Your task to perform on an android device: turn on sleep mode Image 0: 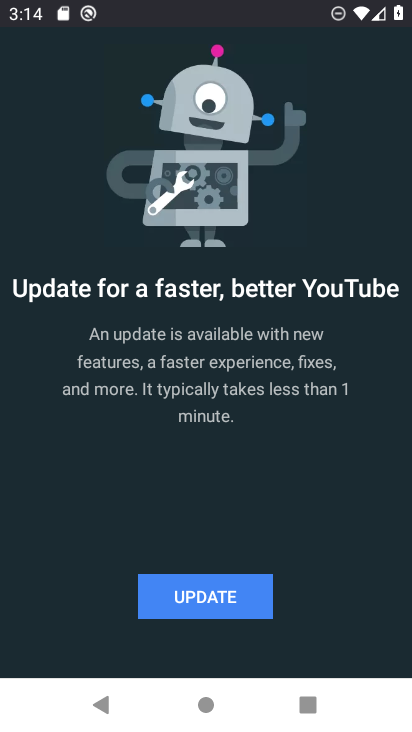
Step 0: press home button
Your task to perform on an android device: turn on sleep mode Image 1: 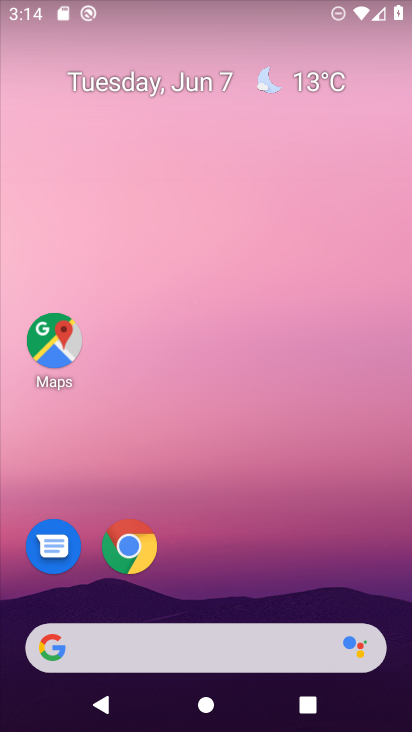
Step 1: drag from (56, 406) to (194, 161)
Your task to perform on an android device: turn on sleep mode Image 2: 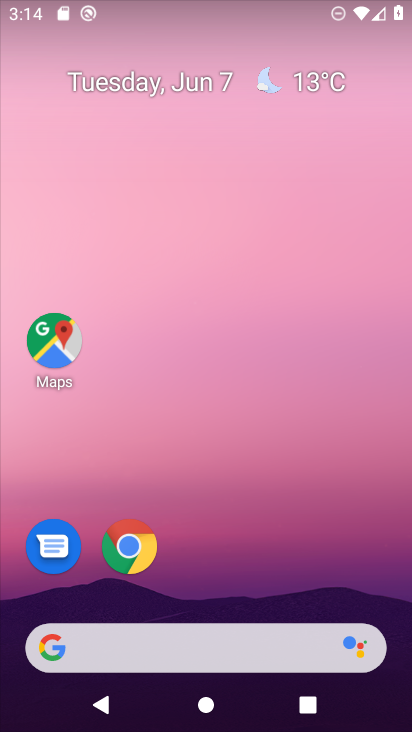
Step 2: drag from (127, 447) to (247, 198)
Your task to perform on an android device: turn on sleep mode Image 3: 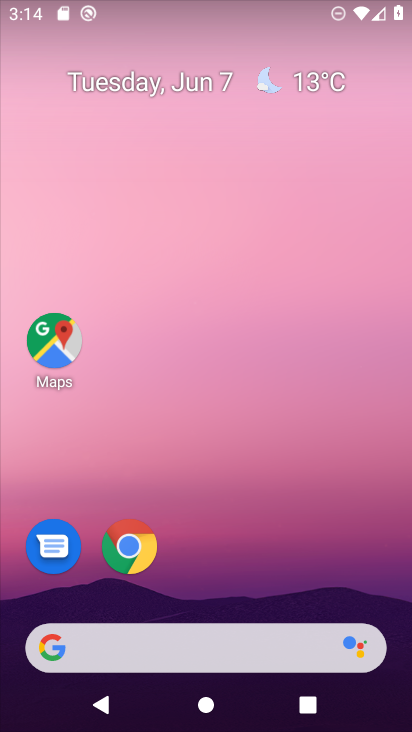
Step 3: drag from (15, 550) to (335, 82)
Your task to perform on an android device: turn on sleep mode Image 4: 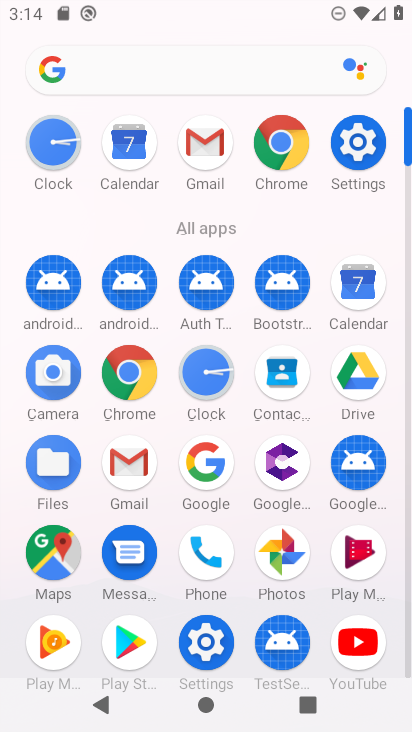
Step 4: click (345, 152)
Your task to perform on an android device: turn on sleep mode Image 5: 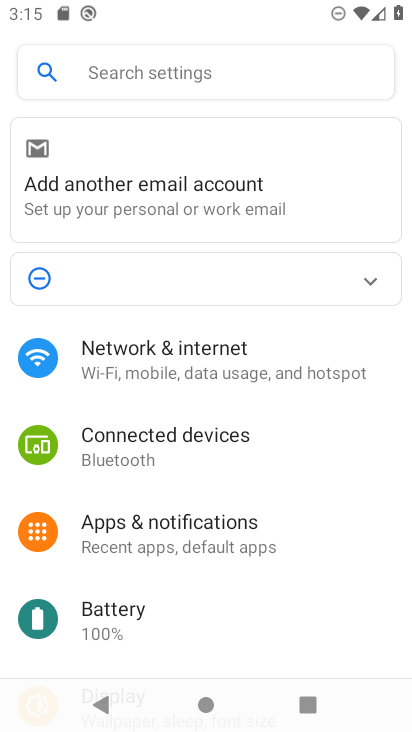
Step 5: click (130, 571)
Your task to perform on an android device: turn on sleep mode Image 6: 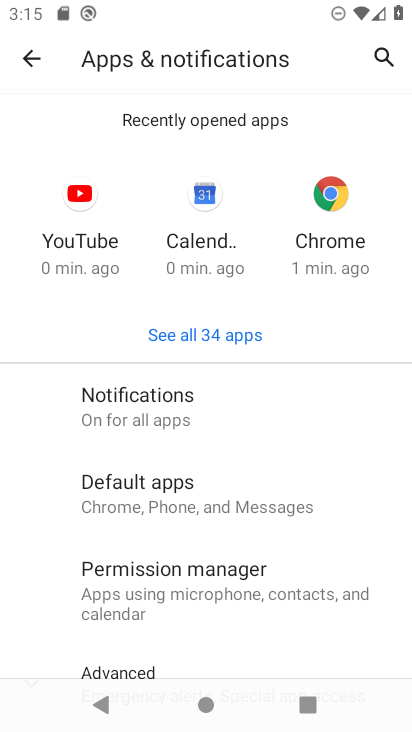
Step 6: task complete